Your task to perform on an android device: Open calendar and show me the first week of next month Image 0: 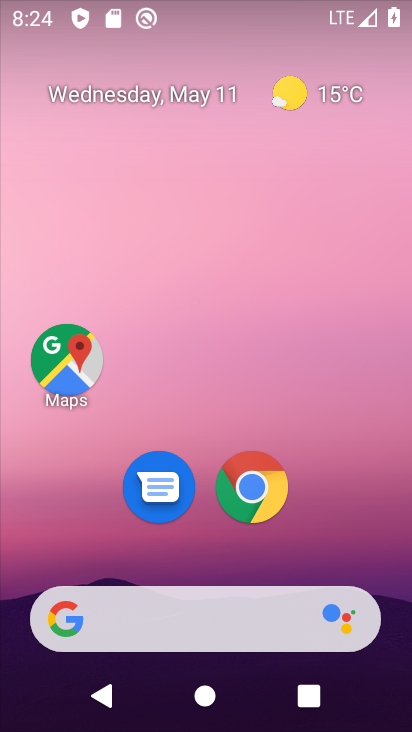
Step 0: drag from (280, 651) to (151, 210)
Your task to perform on an android device: Open calendar and show me the first week of next month Image 1: 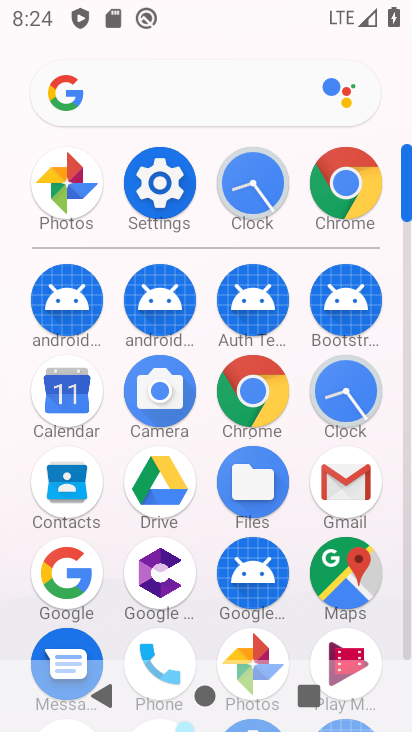
Step 1: click (70, 393)
Your task to perform on an android device: Open calendar and show me the first week of next month Image 2: 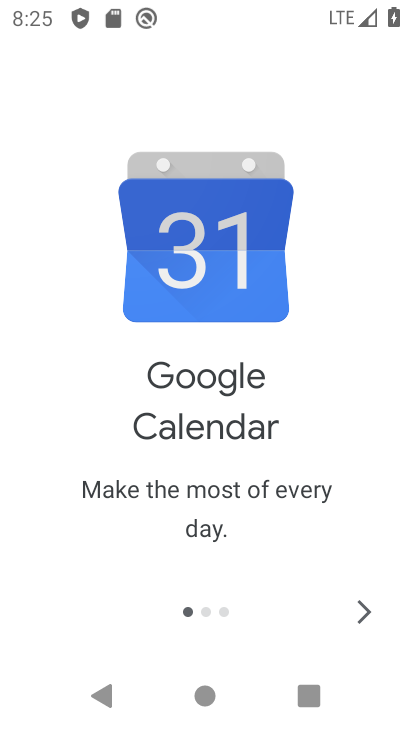
Step 2: click (365, 619)
Your task to perform on an android device: Open calendar and show me the first week of next month Image 3: 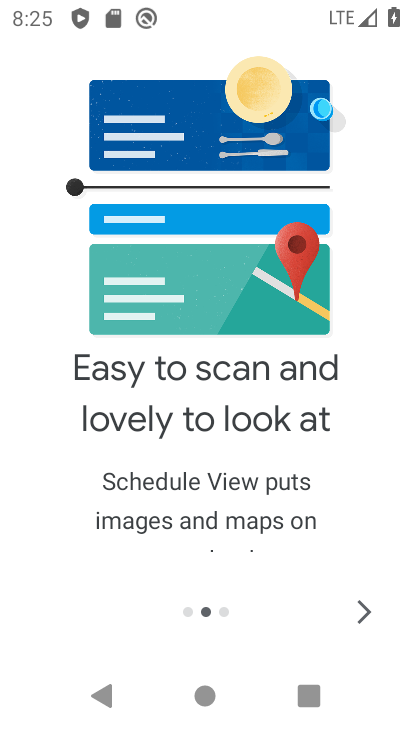
Step 3: click (367, 615)
Your task to perform on an android device: Open calendar and show me the first week of next month Image 4: 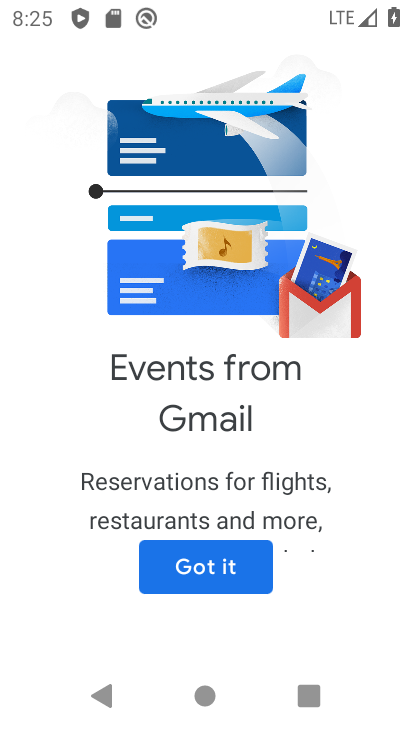
Step 4: click (243, 567)
Your task to perform on an android device: Open calendar and show me the first week of next month Image 5: 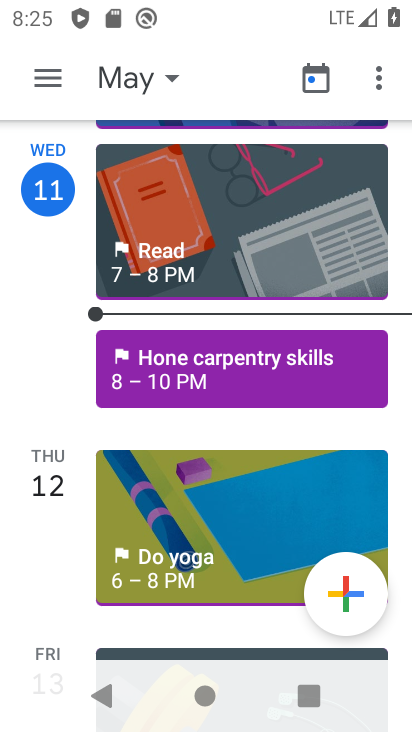
Step 5: click (52, 74)
Your task to perform on an android device: Open calendar and show me the first week of next month Image 6: 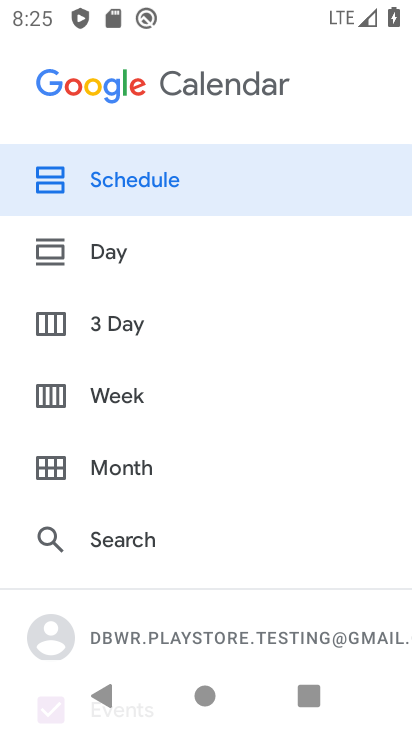
Step 6: click (123, 470)
Your task to perform on an android device: Open calendar and show me the first week of next month Image 7: 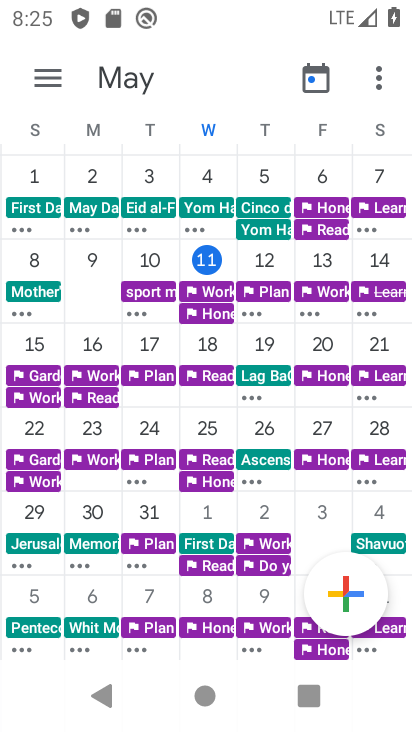
Step 7: drag from (382, 426) to (2, 305)
Your task to perform on an android device: Open calendar and show me the first week of next month Image 8: 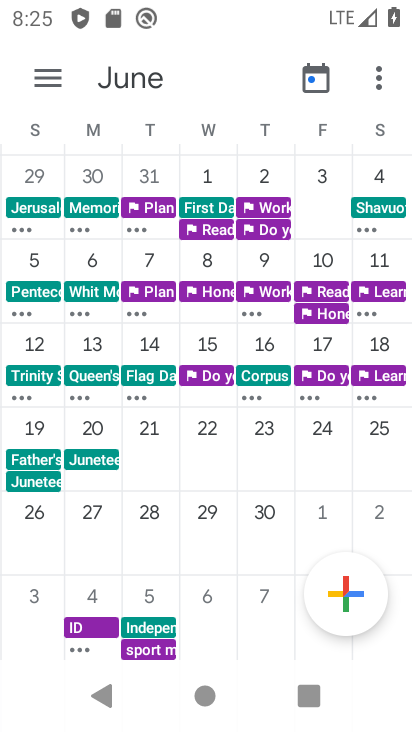
Step 8: click (202, 184)
Your task to perform on an android device: Open calendar and show me the first week of next month Image 9: 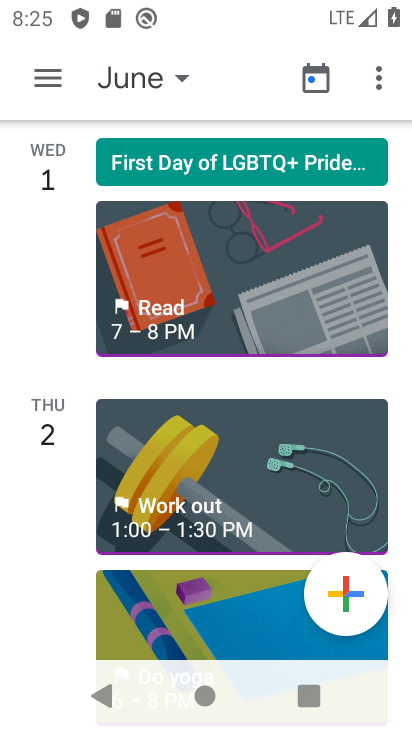
Step 9: task complete